Your task to perform on an android device: Open Amazon Image 0: 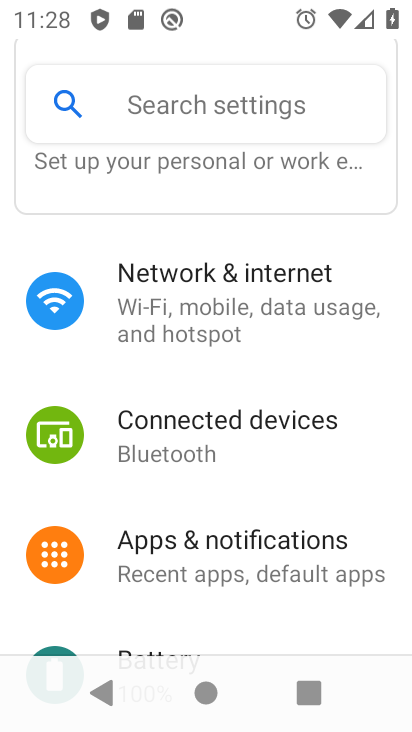
Step 0: press home button
Your task to perform on an android device: Open Amazon Image 1: 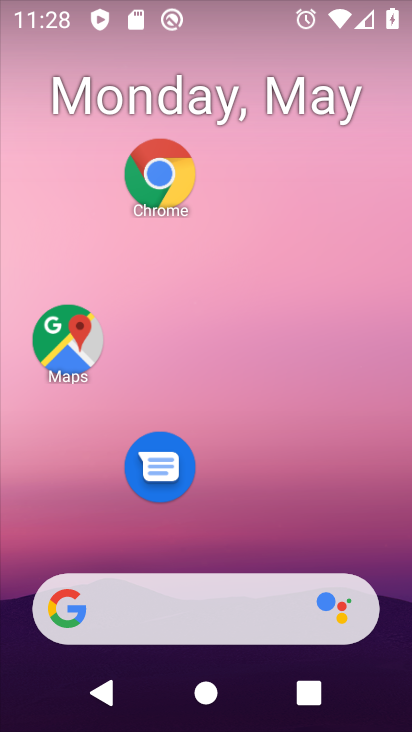
Step 1: click (157, 207)
Your task to perform on an android device: Open Amazon Image 2: 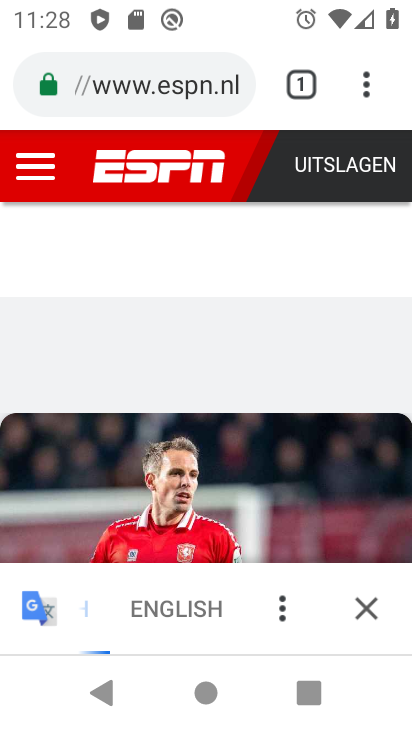
Step 2: click (302, 87)
Your task to perform on an android device: Open Amazon Image 3: 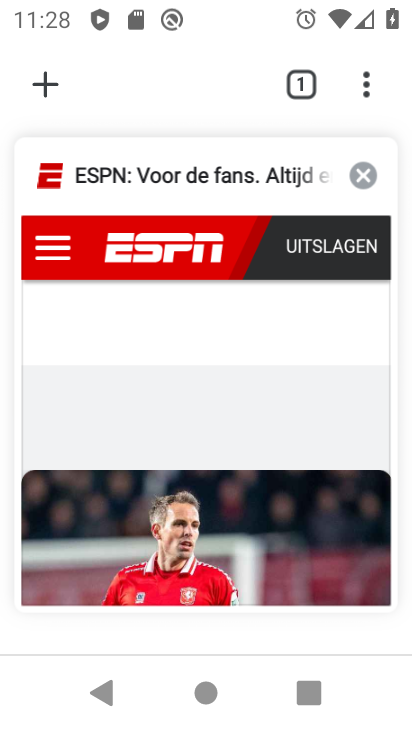
Step 3: click (43, 85)
Your task to perform on an android device: Open Amazon Image 4: 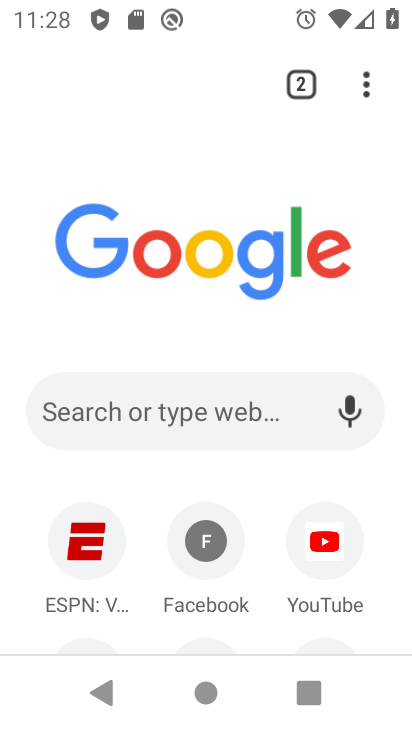
Step 4: drag from (265, 460) to (239, 117)
Your task to perform on an android device: Open Amazon Image 5: 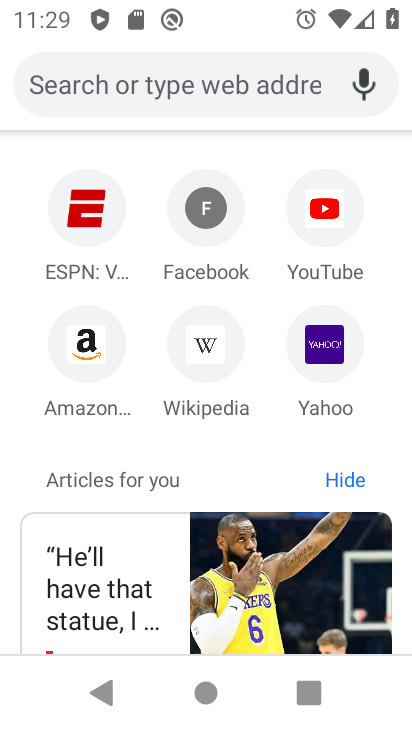
Step 5: click (54, 397)
Your task to perform on an android device: Open Amazon Image 6: 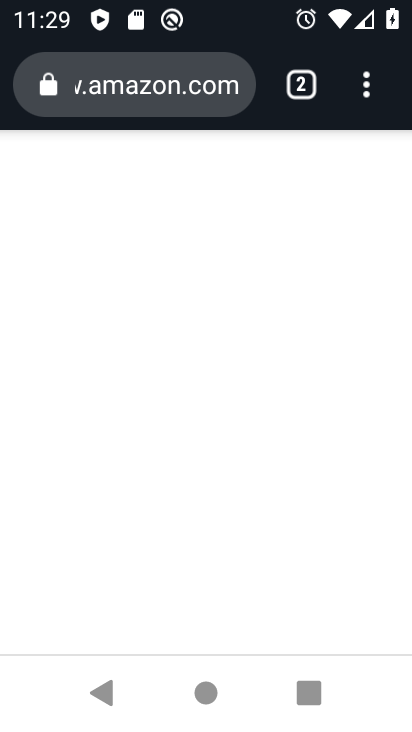
Step 6: task complete